Your task to perform on an android device: Go to settings Image 0: 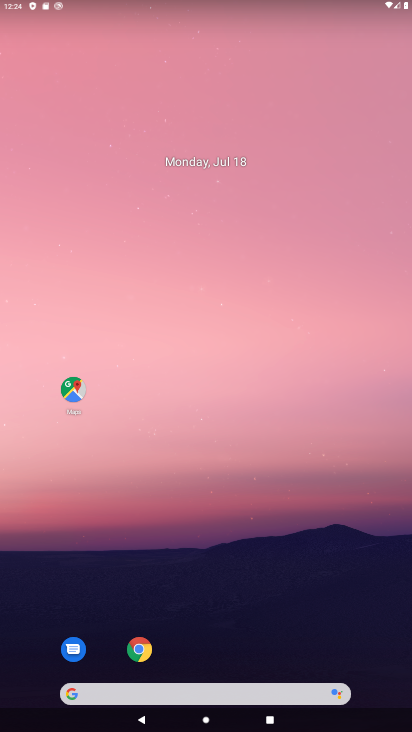
Step 0: drag from (402, 662) to (337, 184)
Your task to perform on an android device: Go to settings Image 1: 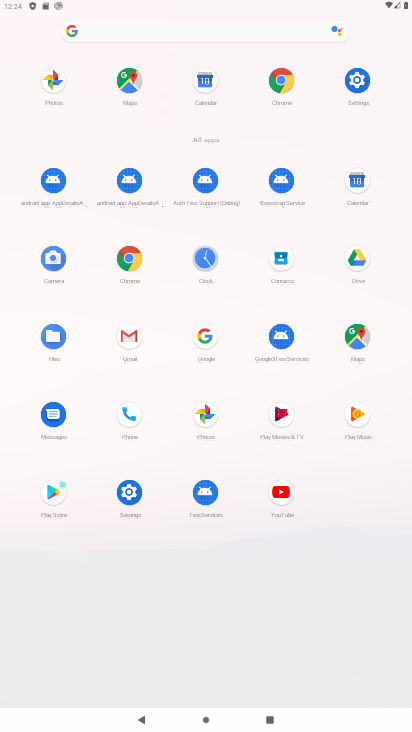
Step 1: click (352, 92)
Your task to perform on an android device: Go to settings Image 2: 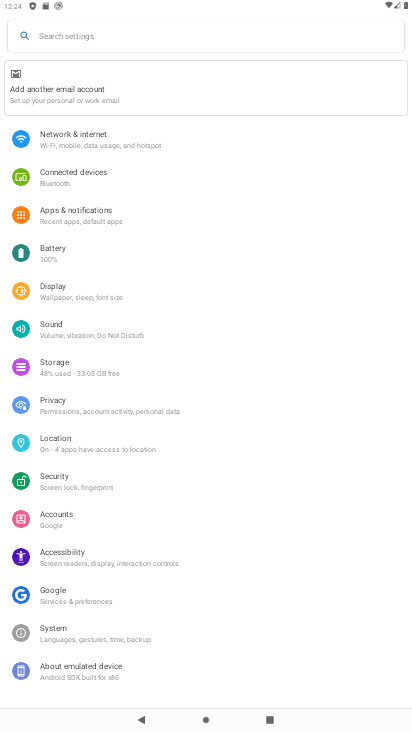
Step 2: task complete